Your task to perform on an android device: Open Yahoo.com Image 0: 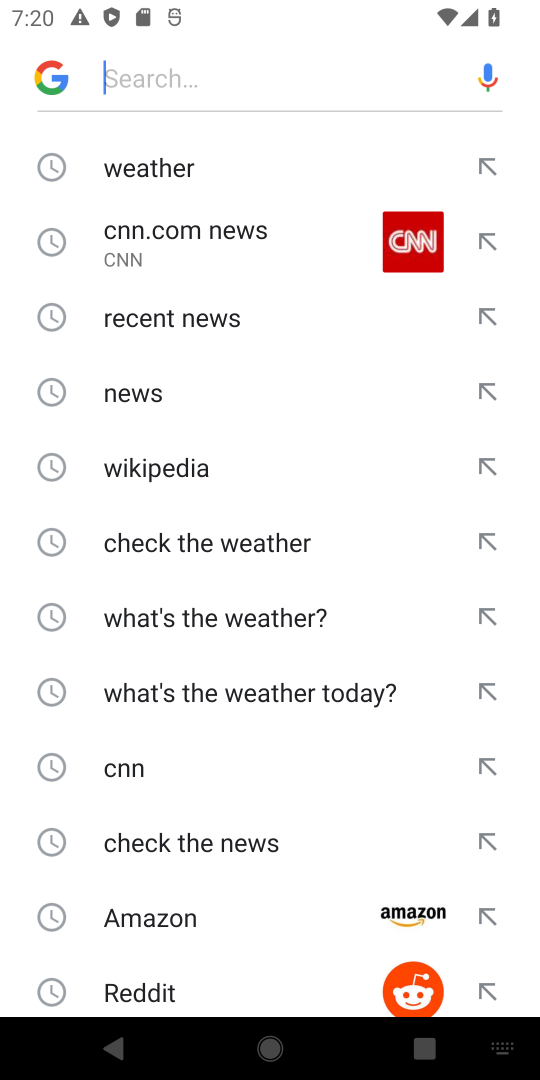
Step 0: press home button
Your task to perform on an android device: Open Yahoo.com Image 1: 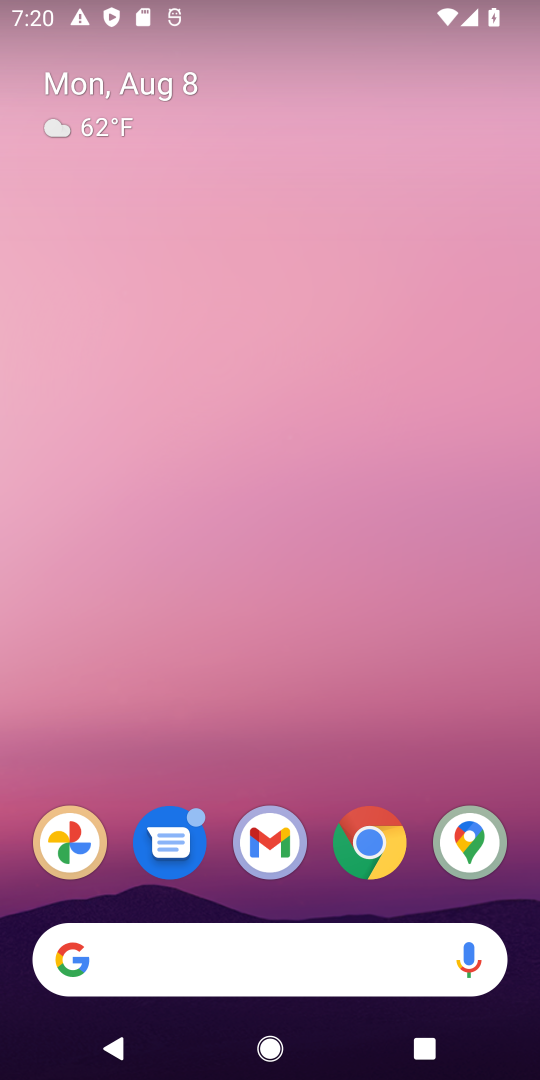
Step 1: click (372, 837)
Your task to perform on an android device: Open Yahoo.com Image 2: 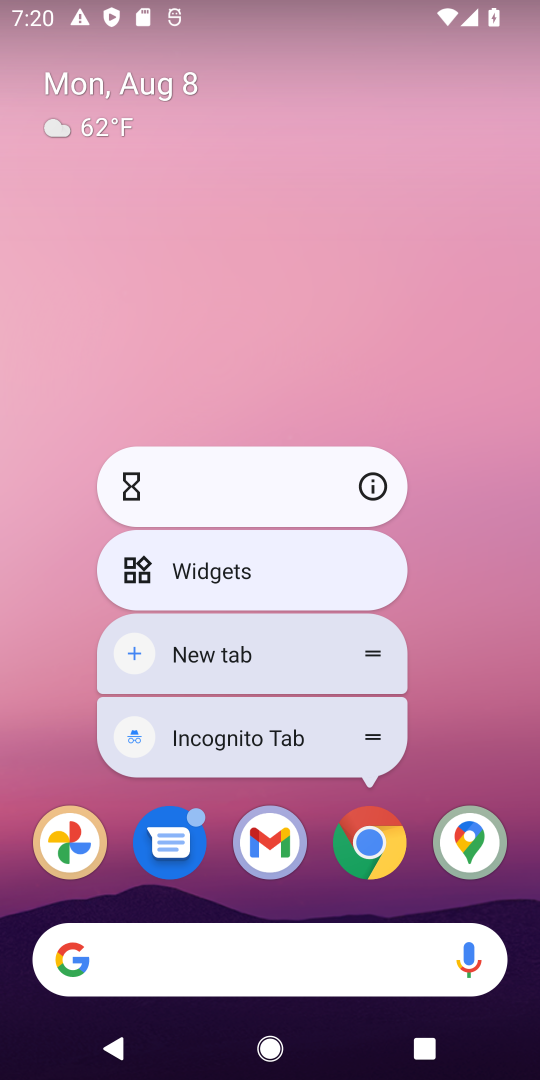
Step 2: click (371, 838)
Your task to perform on an android device: Open Yahoo.com Image 3: 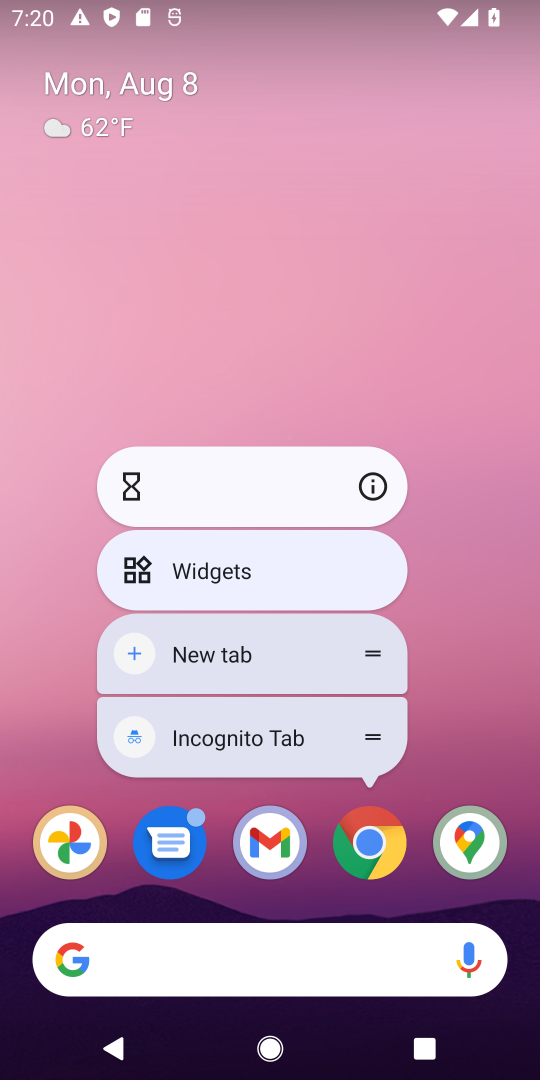
Step 3: click (371, 838)
Your task to perform on an android device: Open Yahoo.com Image 4: 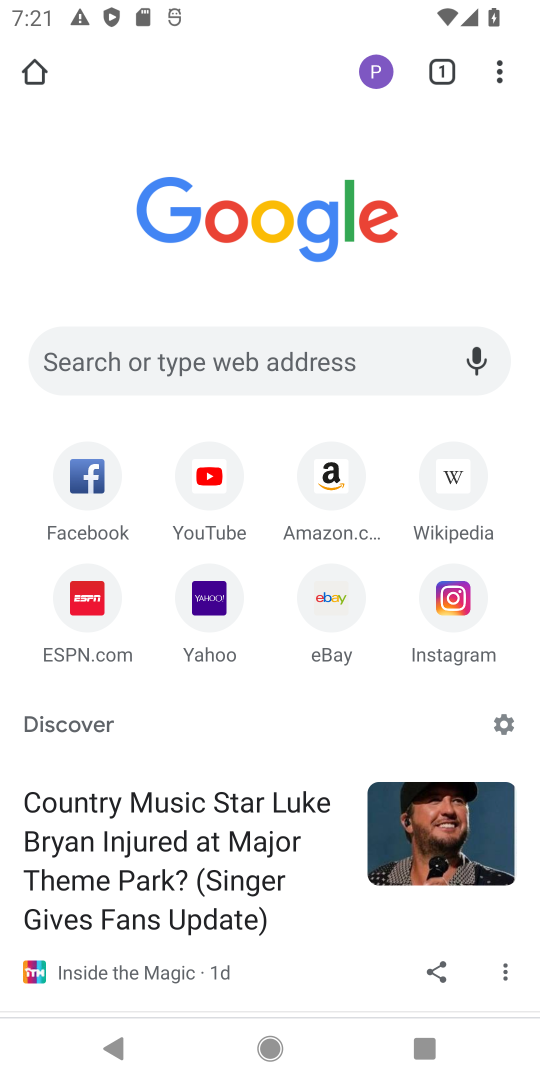
Step 4: click (294, 361)
Your task to perform on an android device: Open Yahoo.com Image 5: 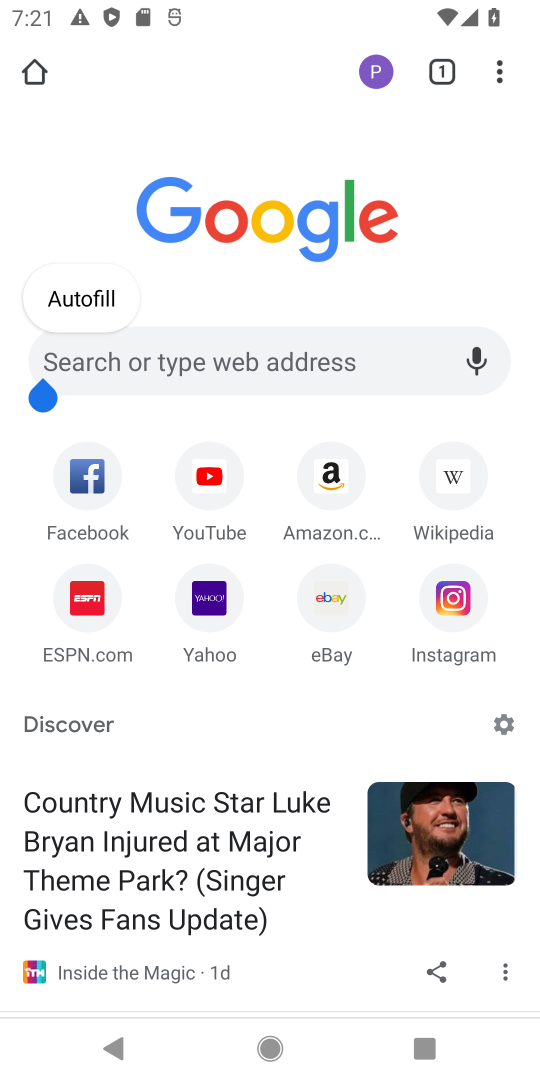
Step 5: type "Yahoo.com"
Your task to perform on an android device: Open Yahoo.com Image 6: 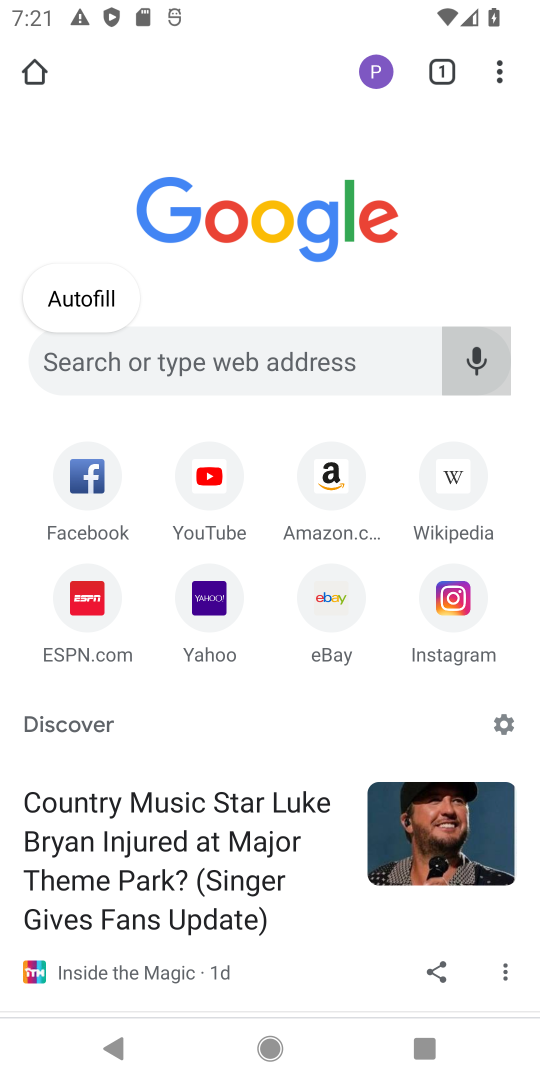
Step 6: click (180, 361)
Your task to perform on an android device: Open Yahoo.com Image 7: 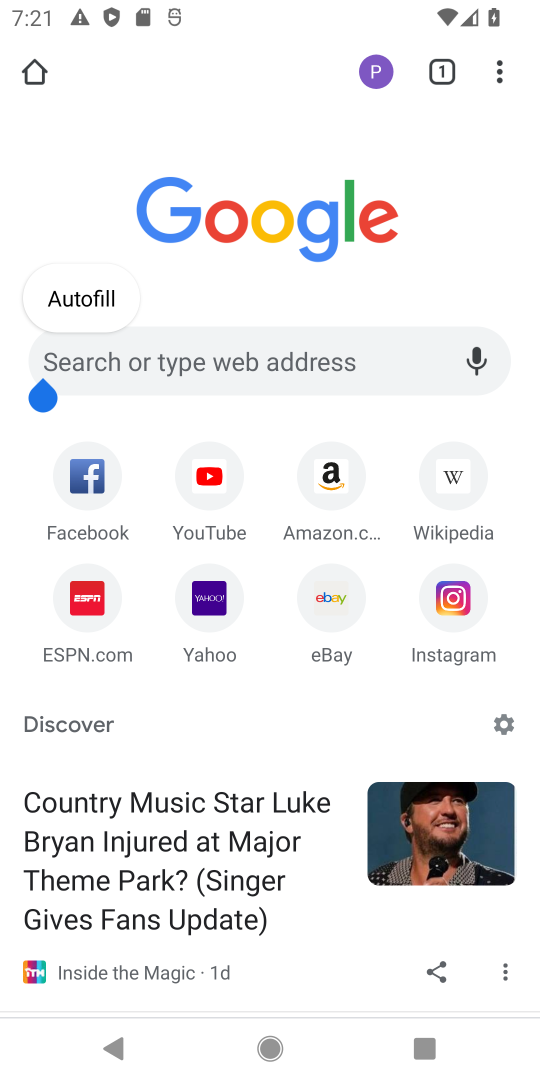
Step 7: click (217, 367)
Your task to perform on an android device: Open Yahoo.com Image 8: 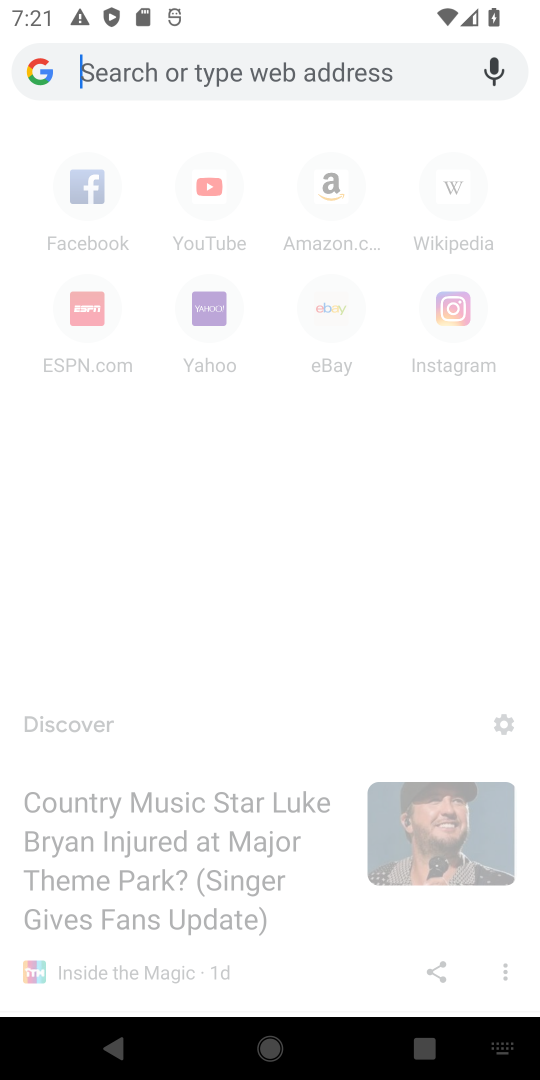
Step 8: type "Yahoo.com"
Your task to perform on an android device: Open Yahoo.com Image 9: 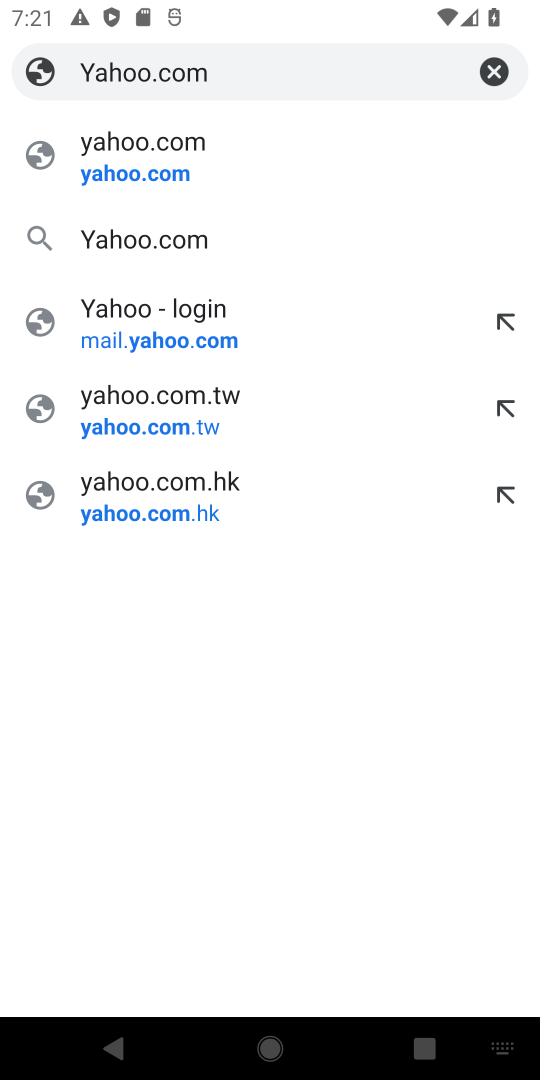
Step 9: click (140, 161)
Your task to perform on an android device: Open Yahoo.com Image 10: 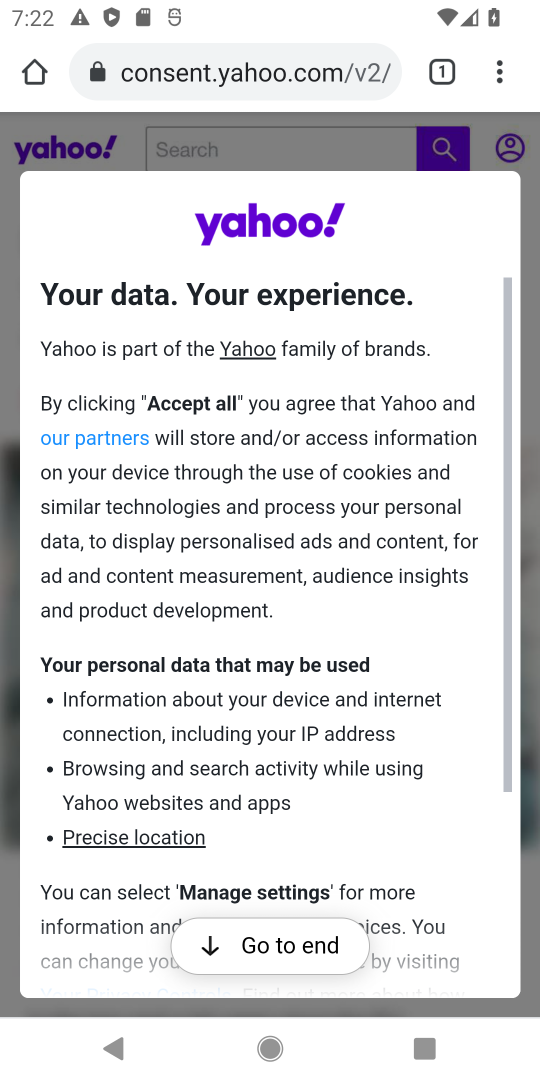
Step 10: task complete